Your task to perform on an android device: see tabs open on other devices in the chrome app Image 0: 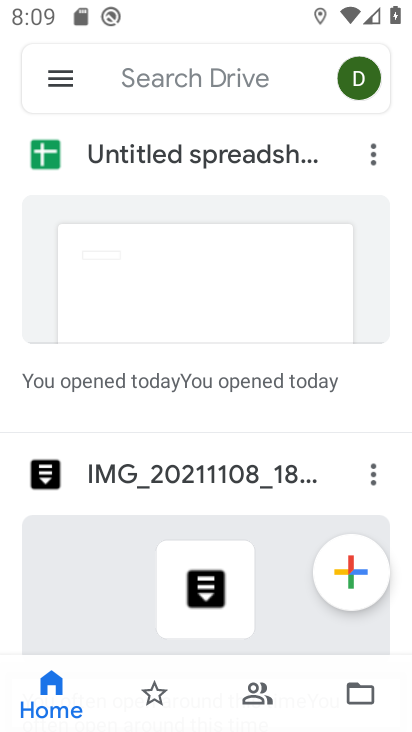
Step 0: press home button
Your task to perform on an android device: see tabs open on other devices in the chrome app Image 1: 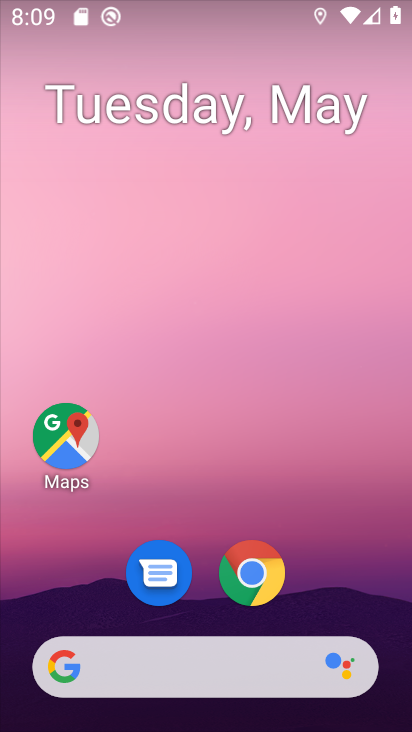
Step 1: click (257, 574)
Your task to perform on an android device: see tabs open on other devices in the chrome app Image 2: 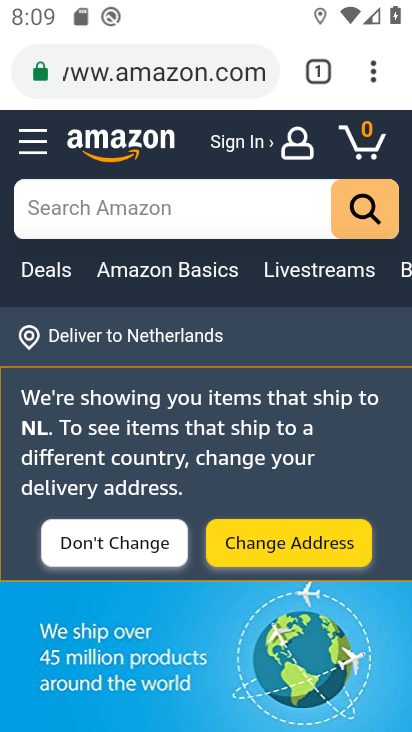
Step 2: click (375, 67)
Your task to perform on an android device: see tabs open on other devices in the chrome app Image 3: 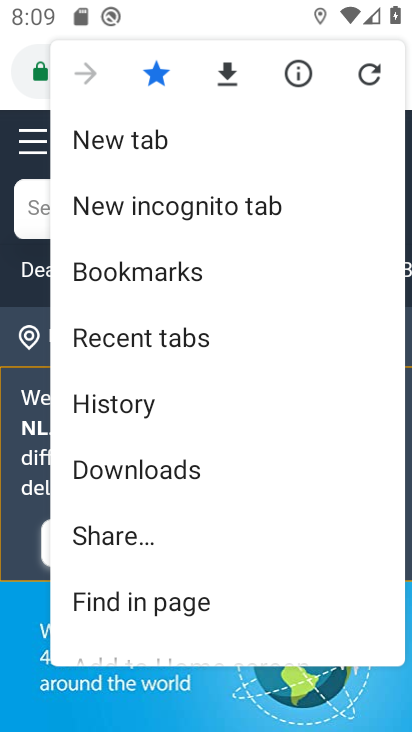
Step 3: drag from (282, 611) to (301, 313)
Your task to perform on an android device: see tabs open on other devices in the chrome app Image 4: 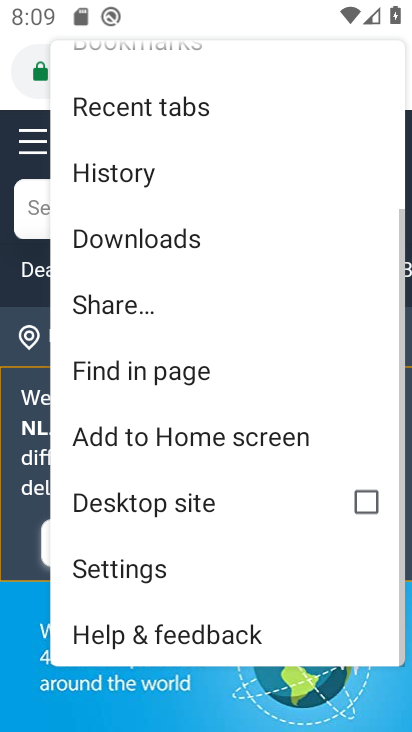
Step 4: click (121, 568)
Your task to perform on an android device: see tabs open on other devices in the chrome app Image 5: 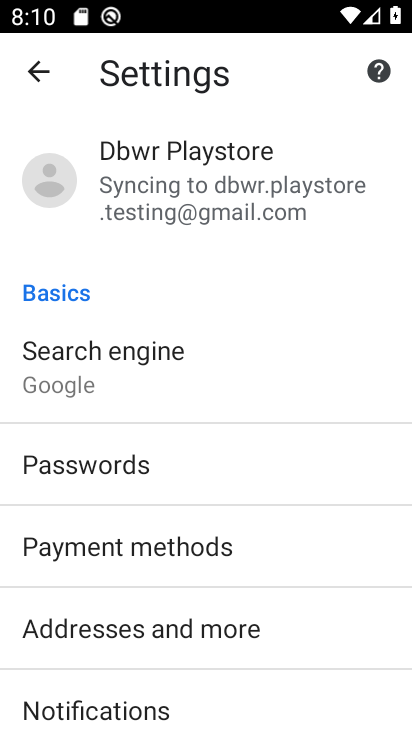
Step 5: drag from (287, 703) to (290, 329)
Your task to perform on an android device: see tabs open on other devices in the chrome app Image 6: 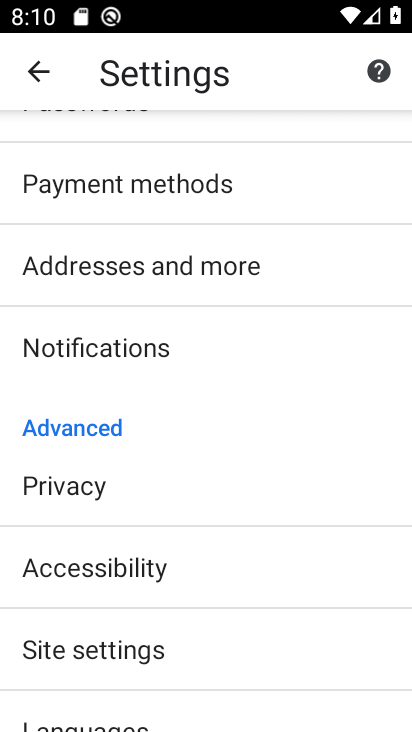
Step 6: click (33, 71)
Your task to perform on an android device: see tabs open on other devices in the chrome app Image 7: 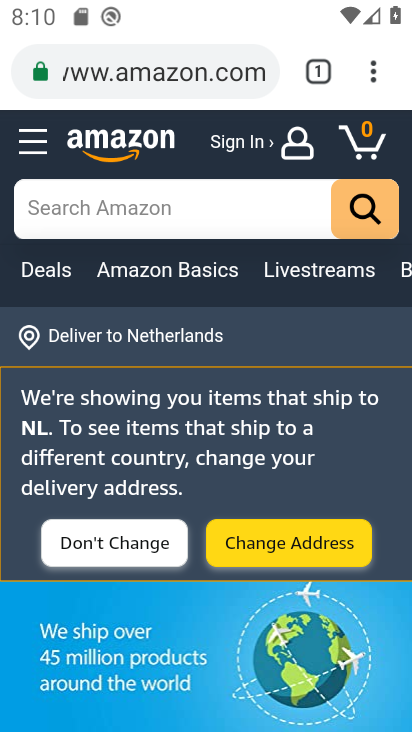
Step 7: click (373, 69)
Your task to perform on an android device: see tabs open on other devices in the chrome app Image 8: 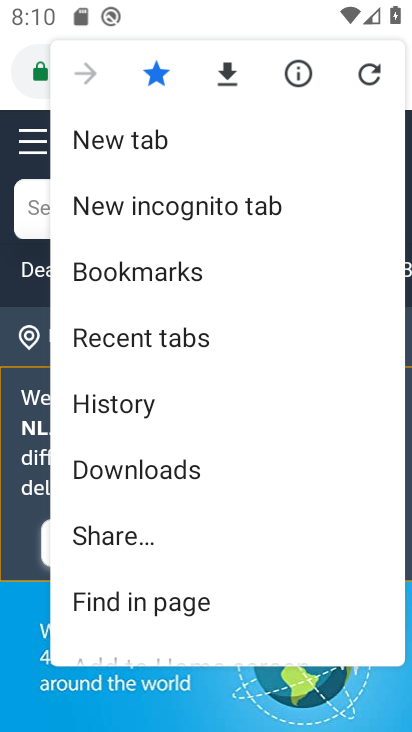
Step 8: click (98, 345)
Your task to perform on an android device: see tabs open on other devices in the chrome app Image 9: 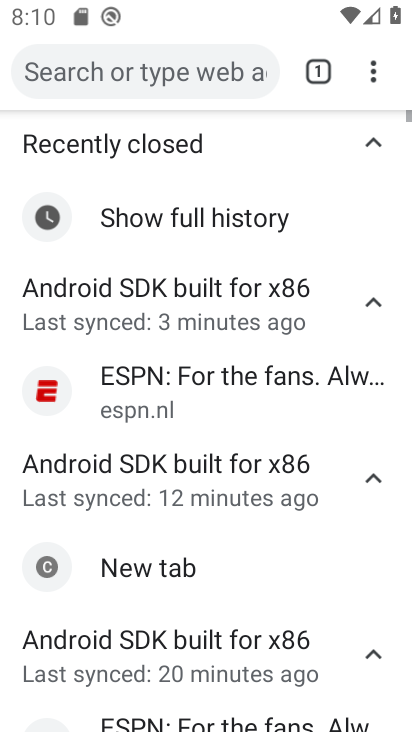
Step 9: task complete